Your task to perform on an android device: Open eBay Image 0: 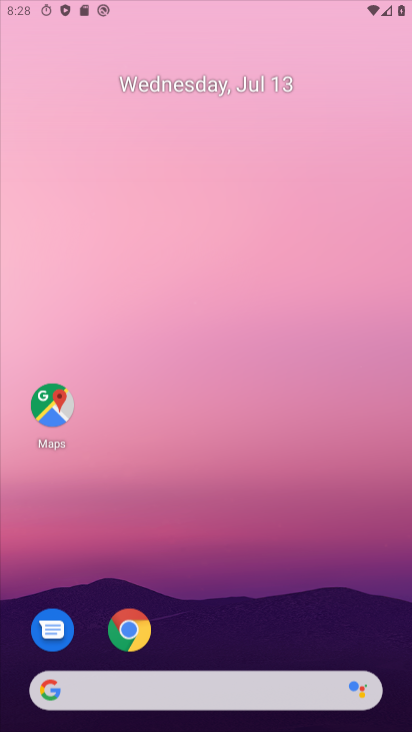
Step 0: click (272, 37)
Your task to perform on an android device: Open eBay Image 1: 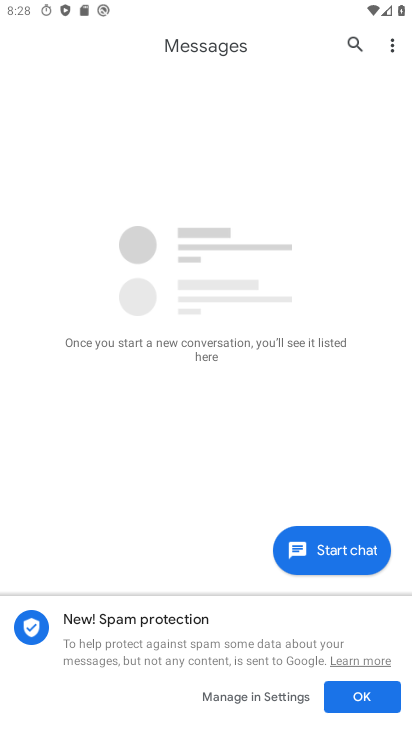
Step 1: drag from (220, 594) to (243, 167)
Your task to perform on an android device: Open eBay Image 2: 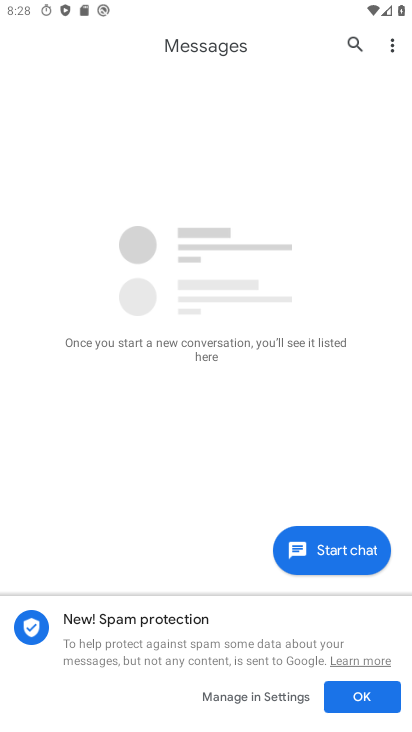
Step 2: press home button
Your task to perform on an android device: Open eBay Image 3: 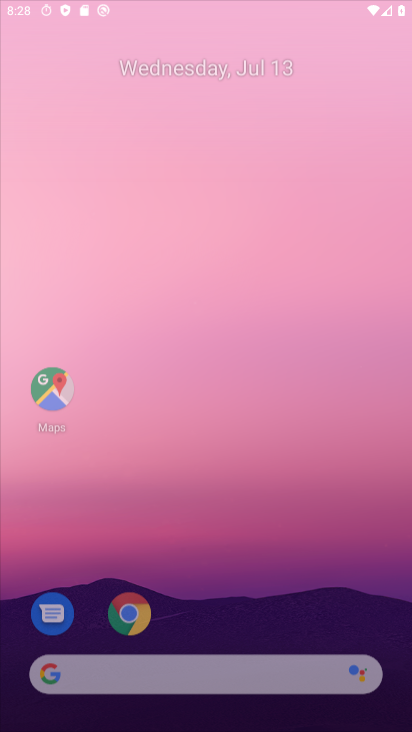
Step 3: drag from (233, 555) to (243, 127)
Your task to perform on an android device: Open eBay Image 4: 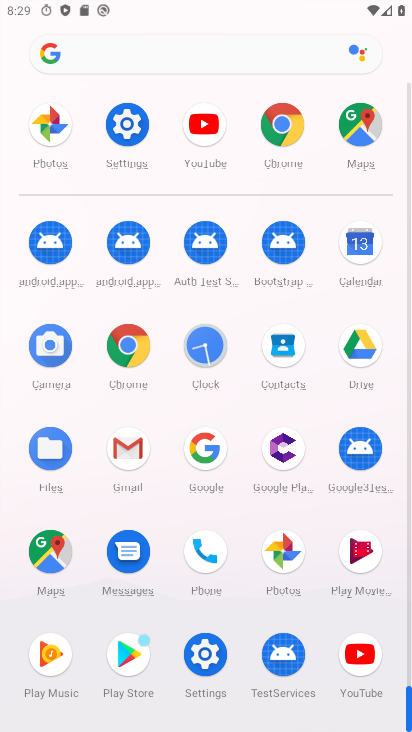
Step 4: click (137, 62)
Your task to perform on an android device: Open eBay Image 5: 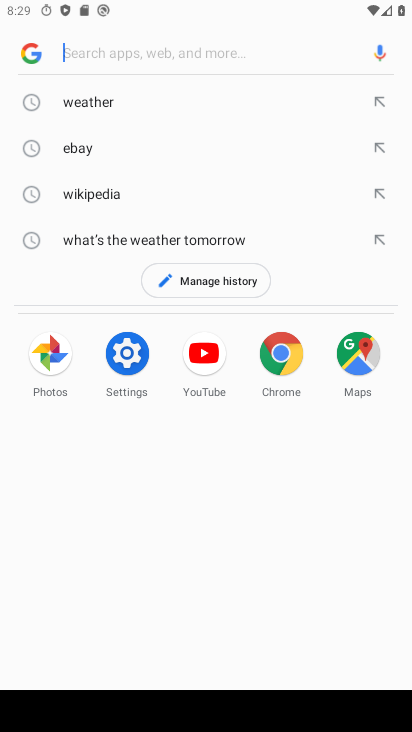
Step 5: type "ebay"
Your task to perform on an android device: Open eBay Image 6: 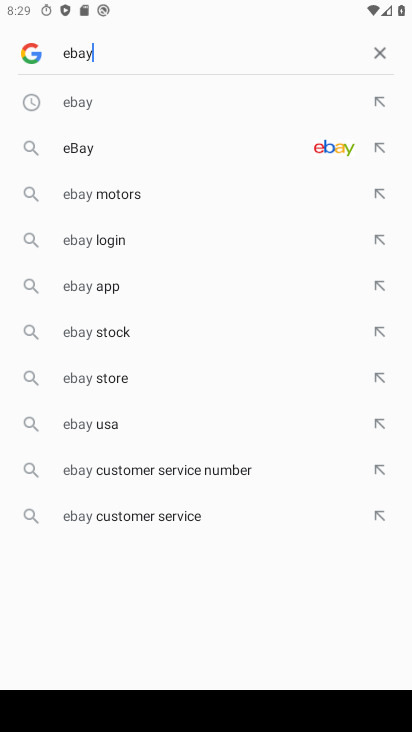
Step 6: click (75, 154)
Your task to perform on an android device: Open eBay Image 7: 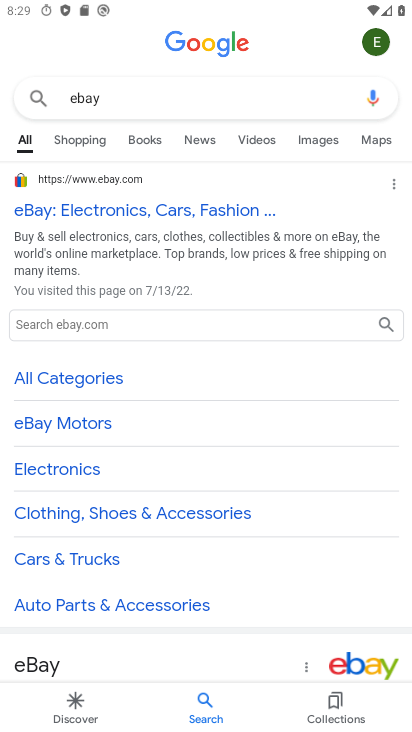
Step 7: click (122, 218)
Your task to perform on an android device: Open eBay Image 8: 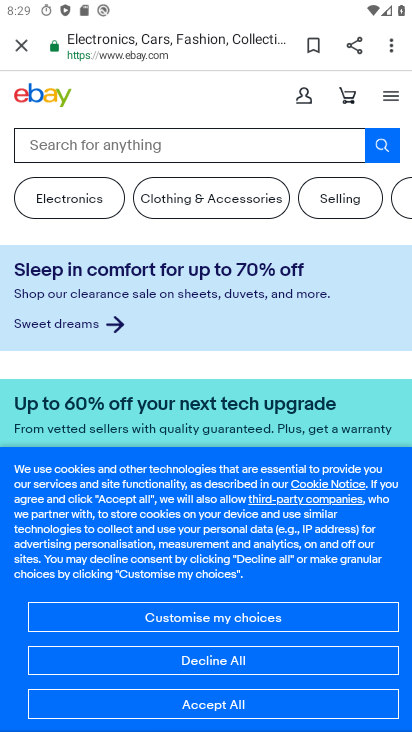
Step 8: task complete